Your task to perform on an android device: Go to calendar. Show me events next week Image 0: 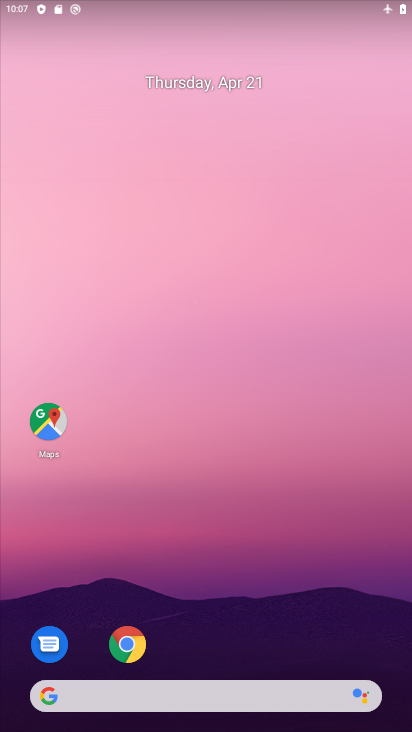
Step 0: drag from (304, 605) to (210, 131)
Your task to perform on an android device: Go to calendar. Show me events next week Image 1: 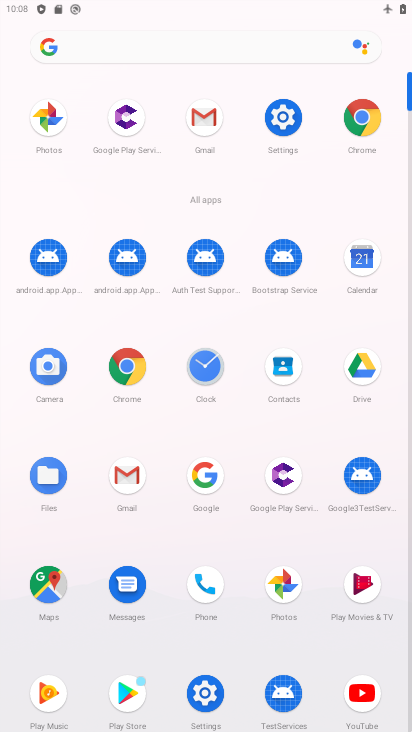
Step 1: click (377, 271)
Your task to perform on an android device: Go to calendar. Show me events next week Image 2: 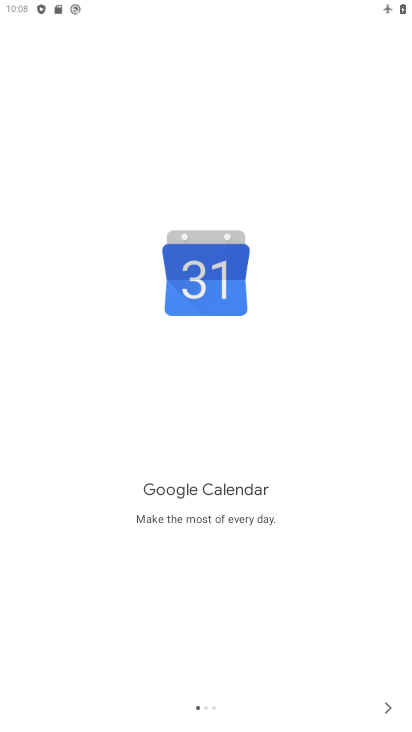
Step 2: click (386, 709)
Your task to perform on an android device: Go to calendar. Show me events next week Image 3: 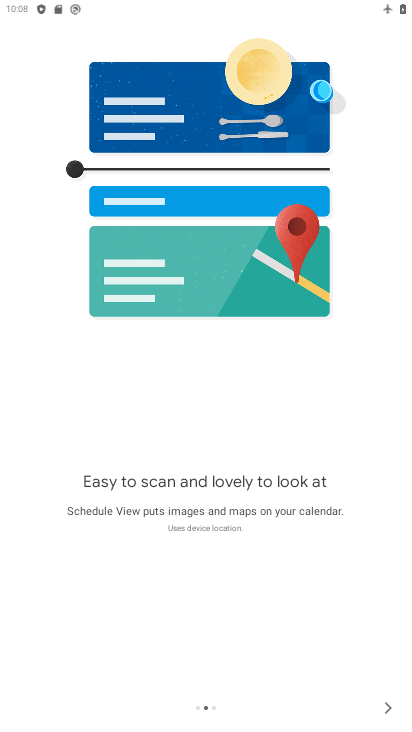
Step 3: click (385, 708)
Your task to perform on an android device: Go to calendar. Show me events next week Image 4: 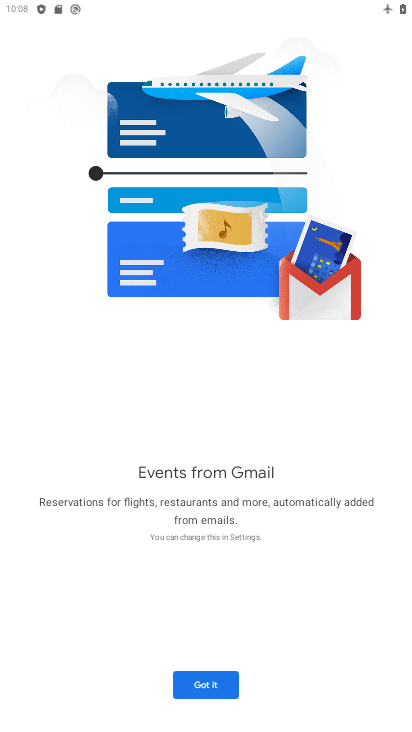
Step 4: click (185, 686)
Your task to perform on an android device: Go to calendar. Show me events next week Image 5: 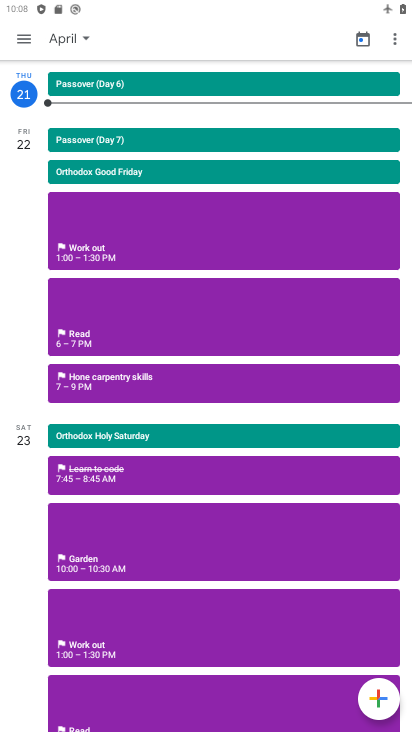
Step 5: click (63, 35)
Your task to perform on an android device: Go to calendar. Show me events next week Image 6: 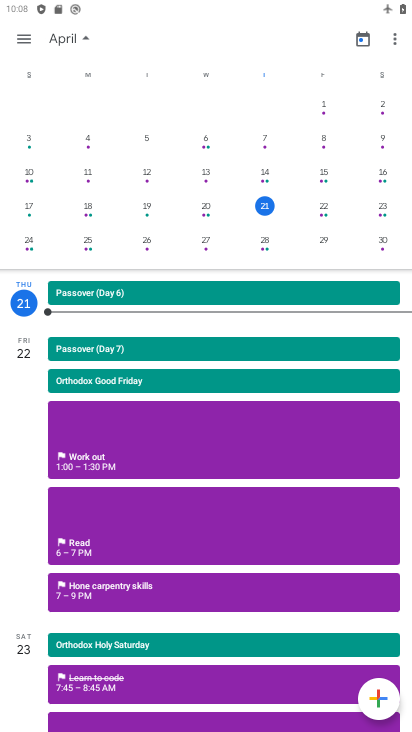
Step 6: drag from (349, 214) to (35, 164)
Your task to perform on an android device: Go to calendar. Show me events next week Image 7: 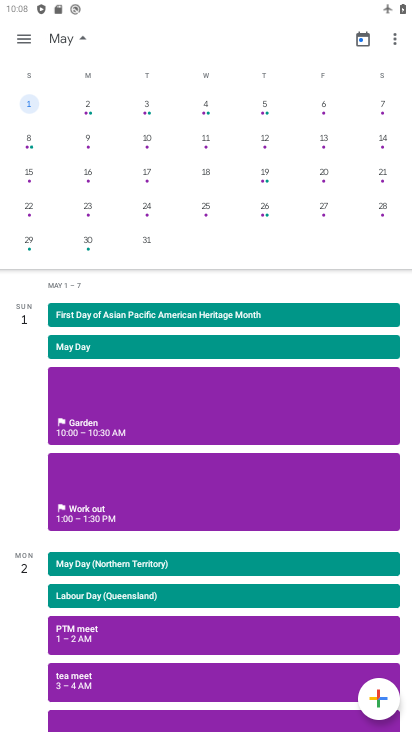
Step 7: drag from (53, 191) to (322, 208)
Your task to perform on an android device: Go to calendar. Show me events next week Image 8: 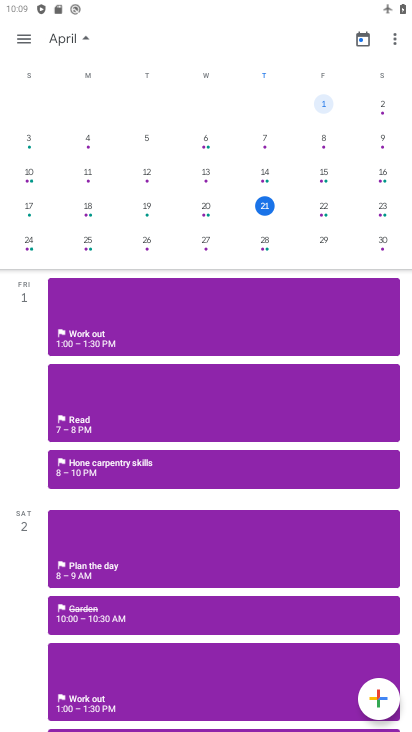
Step 8: click (324, 208)
Your task to perform on an android device: Go to calendar. Show me events next week Image 9: 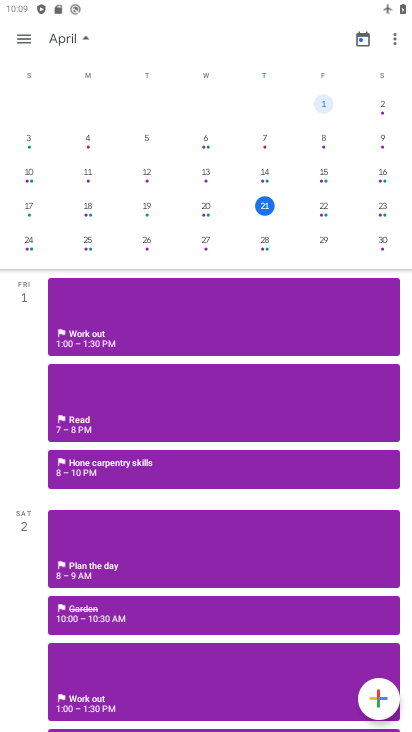
Step 9: click (317, 212)
Your task to perform on an android device: Go to calendar. Show me events next week Image 10: 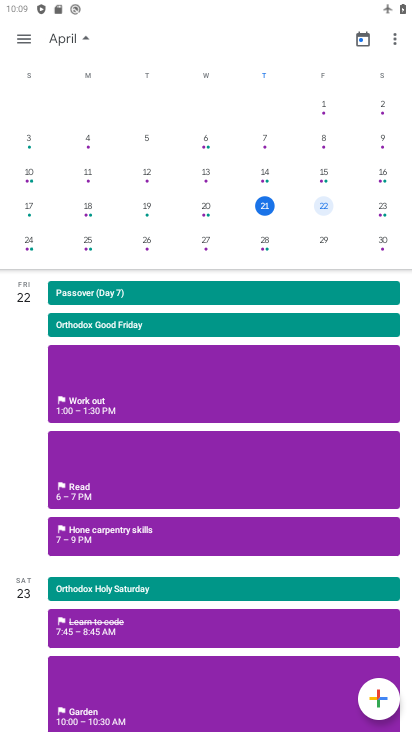
Step 10: click (392, 207)
Your task to perform on an android device: Go to calendar. Show me events next week Image 11: 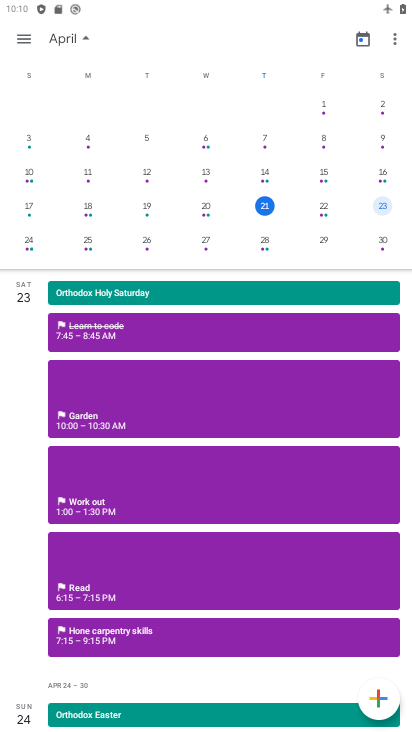
Step 11: task complete